Your task to perform on an android device: Go to network settings Image 0: 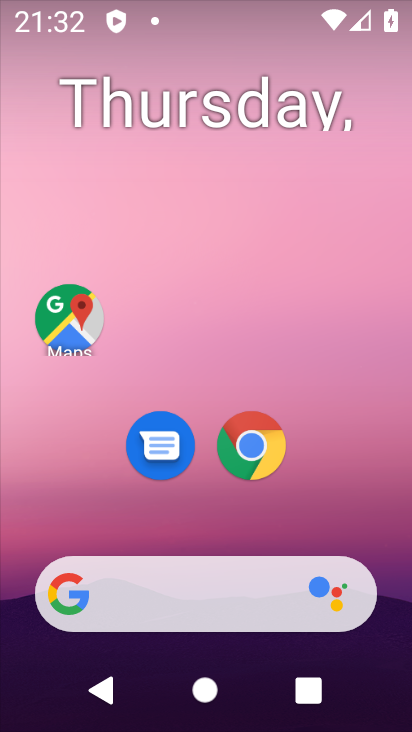
Step 0: press home button
Your task to perform on an android device: Go to network settings Image 1: 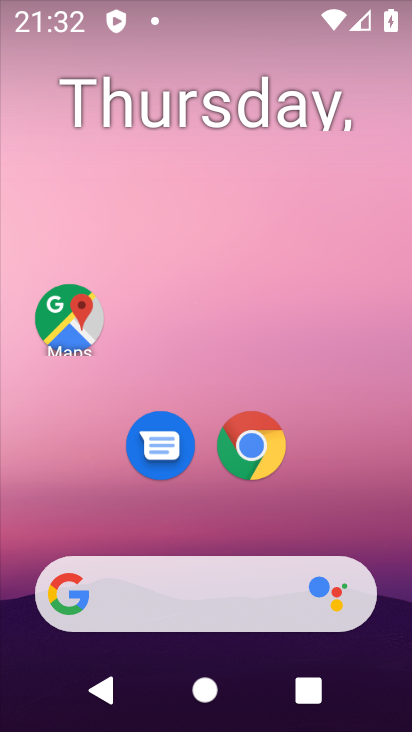
Step 1: drag from (0, 473) to (180, 205)
Your task to perform on an android device: Go to network settings Image 2: 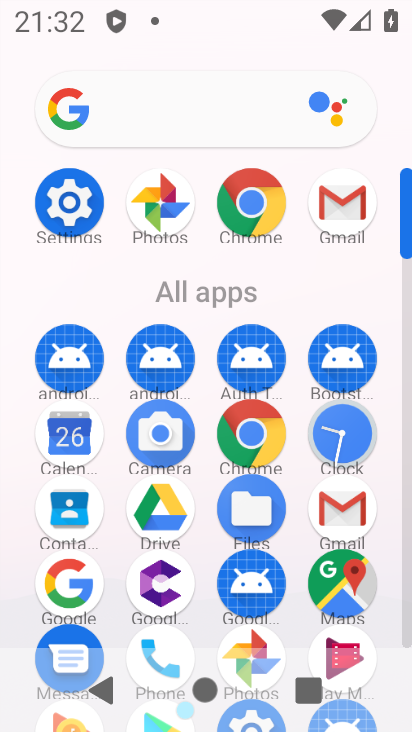
Step 2: click (82, 212)
Your task to perform on an android device: Go to network settings Image 3: 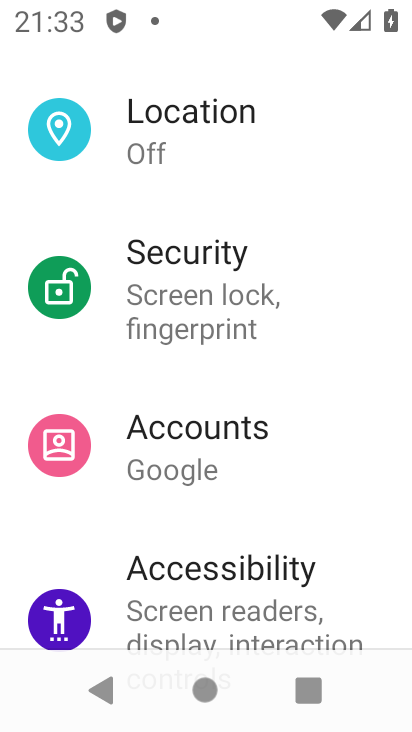
Step 3: drag from (152, 122) to (116, 662)
Your task to perform on an android device: Go to network settings Image 4: 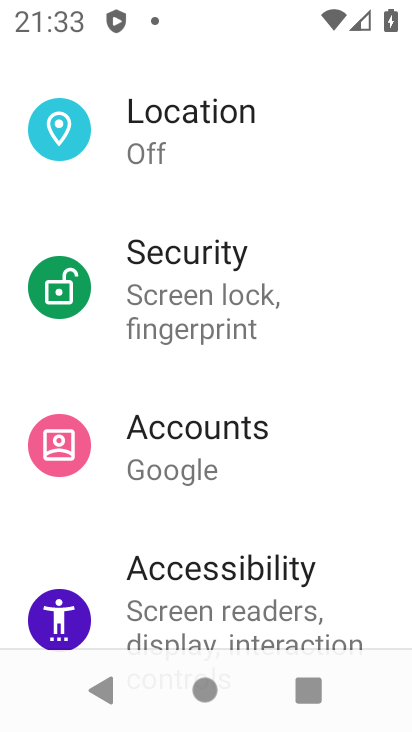
Step 4: drag from (247, 141) to (226, 585)
Your task to perform on an android device: Go to network settings Image 5: 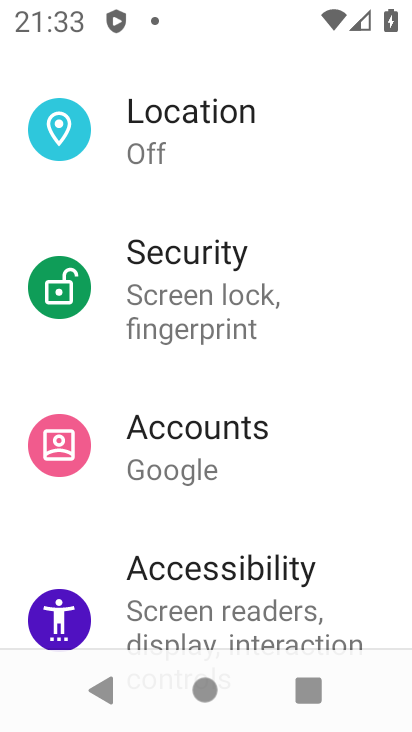
Step 5: drag from (117, 183) to (107, 633)
Your task to perform on an android device: Go to network settings Image 6: 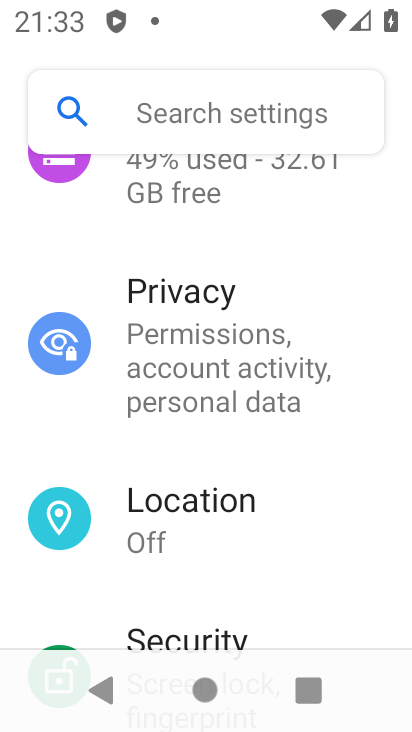
Step 6: drag from (99, 163) to (78, 505)
Your task to perform on an android device: Go to network settings Image 7: 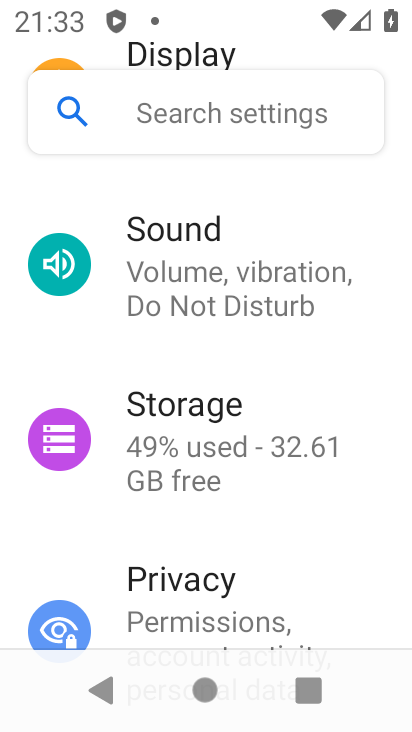
Step 7: drag from (102, 194) to (78, 547)
Your task to perform on an android device: Go to network settings Image 8: 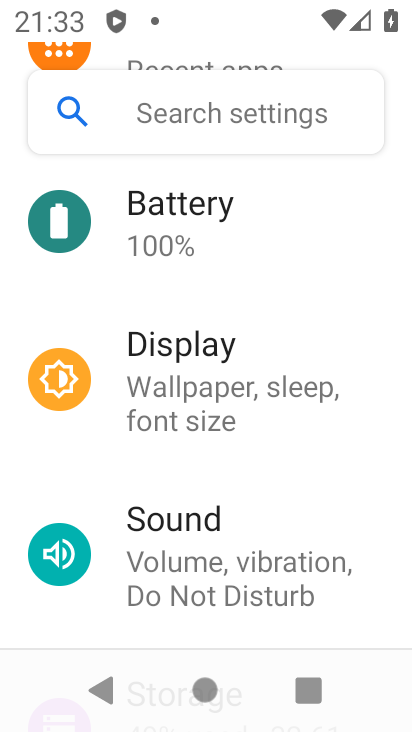
Step 8: drag from (143, 202) to (95, 567)
Your task to perform on an android device: Go to network settings Image 9: 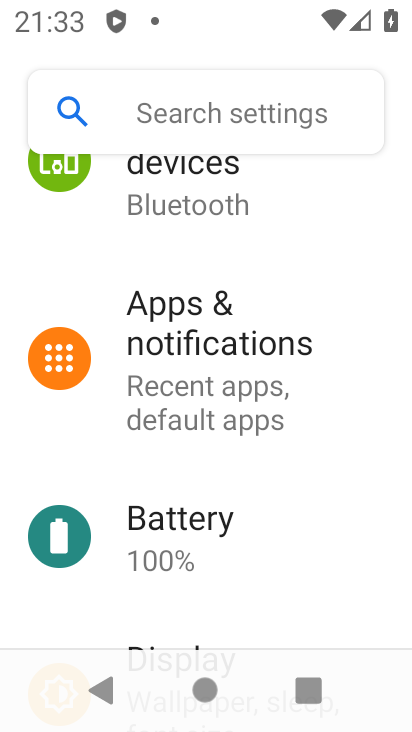
Step 9: drag from (138, 232) to (104, 562)
Your task to perform on an android device: Go to network settings Image 10: 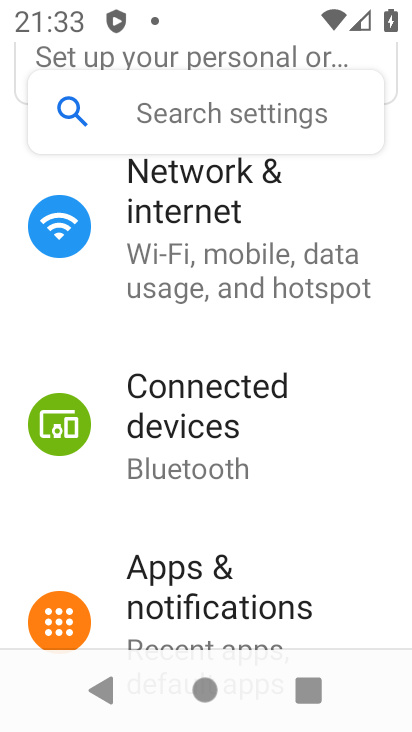
Step 10: click (160, 215)
Your task to perform on an android device: Go to network settings Image 11: 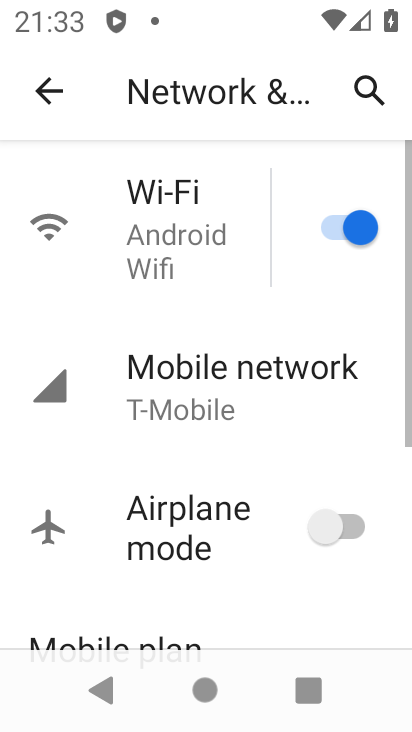
Step 11: click (317, 359)
Your task to perform on an android device: Go to network settings Image 12: 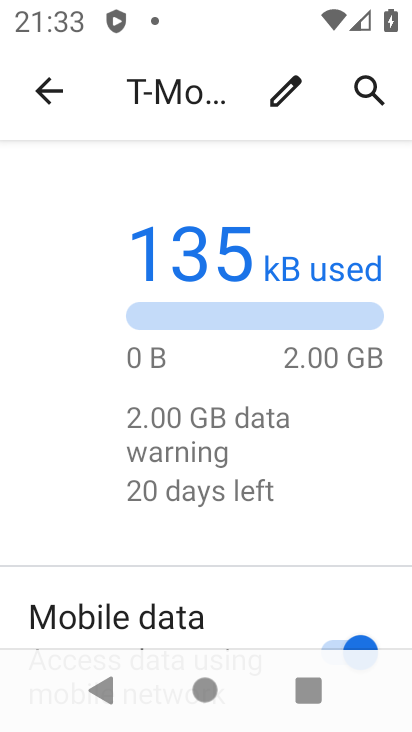
Step 12: task complete